Your task to perform on an android device: Go to network settings Image 0: 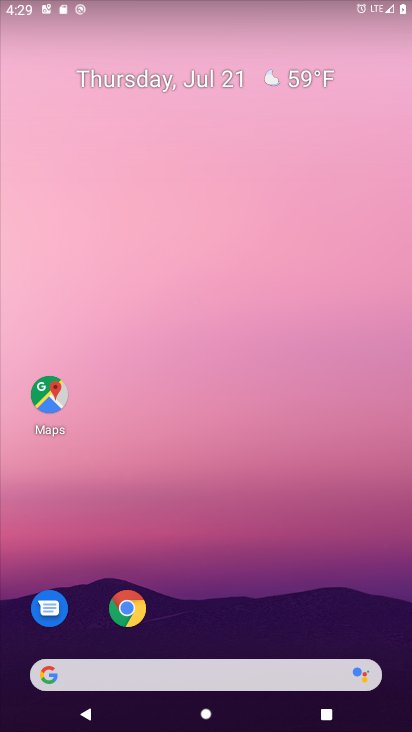
Step 0: drag from (328, 682) to (282, 125)
Your task to perform on an android device: Go to network settings Image 1: 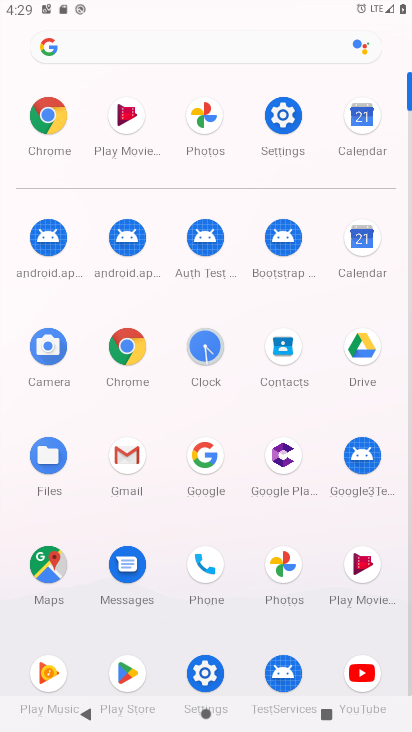
Step 1: click (284, 100)
Your task to perform on an android device: Go to network settings Image 2: 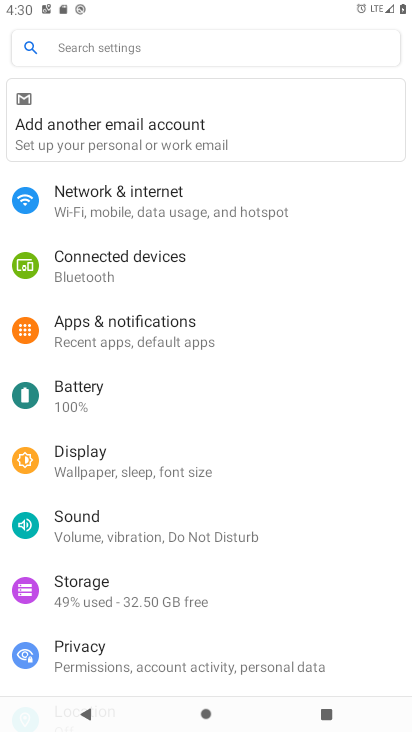
Step 2: click (163, 199)
Your task to perform on an android device: Go to network settings Image 3: 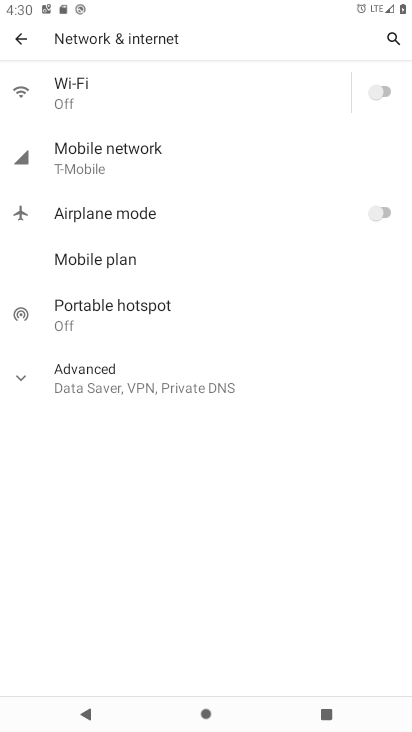
Step 3: task complete